Your task to perform on an android device: toggle priority inbox in the gmail app Image 0: 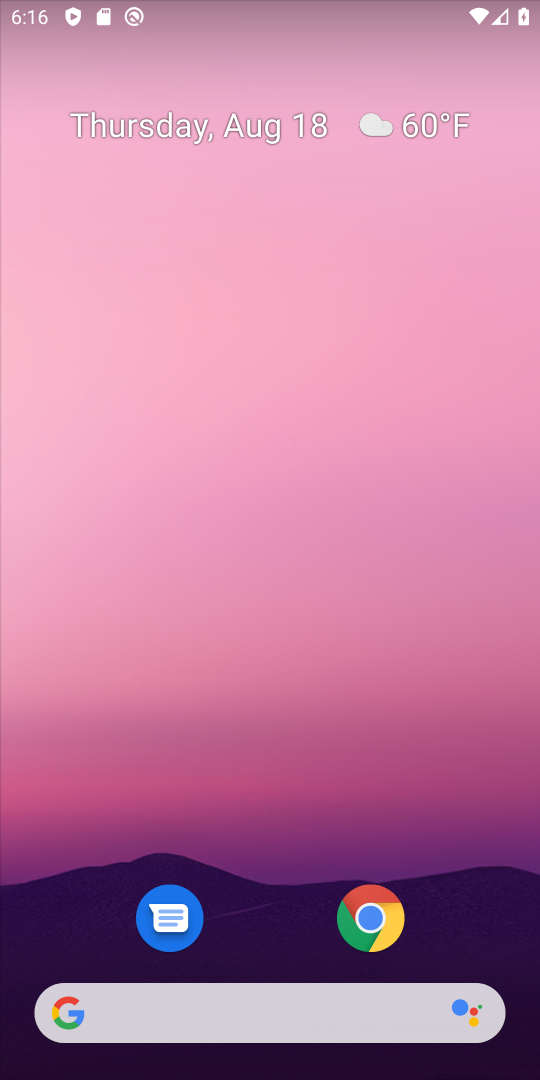
Step 0: drag from (261, 955) to (320, 94)
Your task to perform on an android device: toggle priority inbox in the gmail app Image 1: 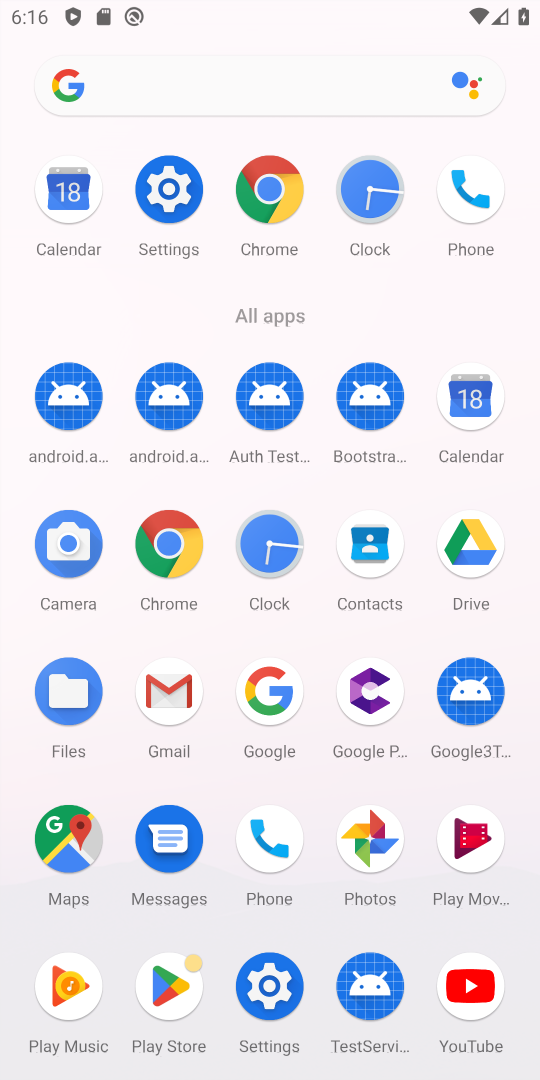
Step 1: click (154, 690)
Your task to perform on an android device: toggle priority inbox in the gmail app Image 2: 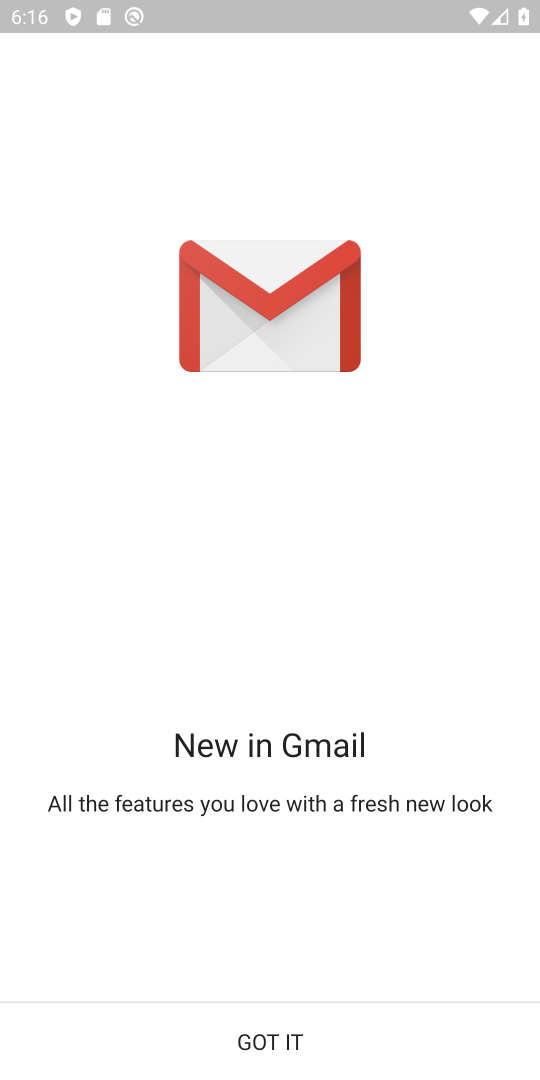
Step 2: click (267, 1051)
Your task to perform on an android device: toggle priority inbox in the gmail app Image 3: 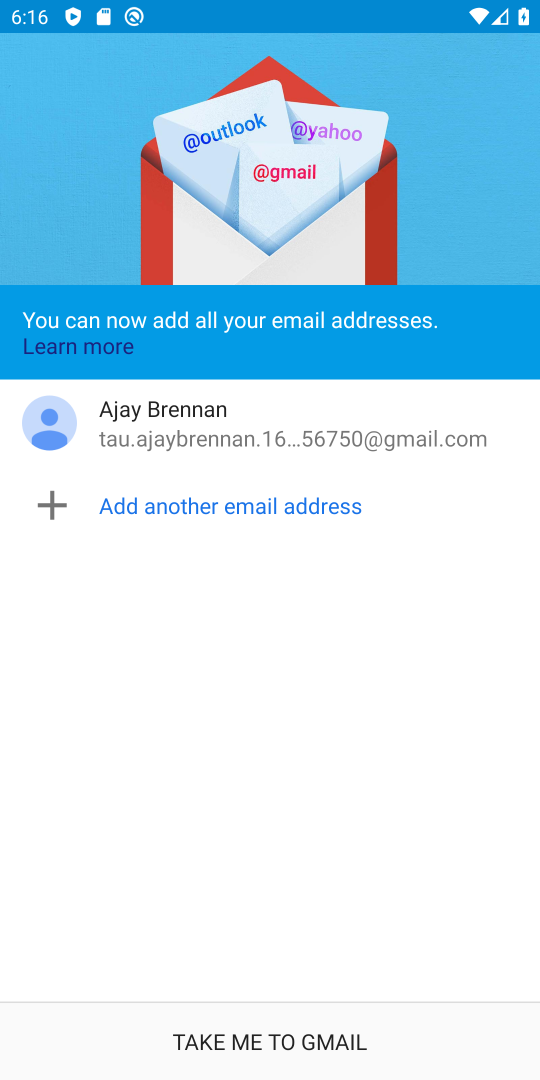
Step 3: click (269, 1044)
Your task to perform on an android device: toggle priority inbox in the gmail app Image 4: 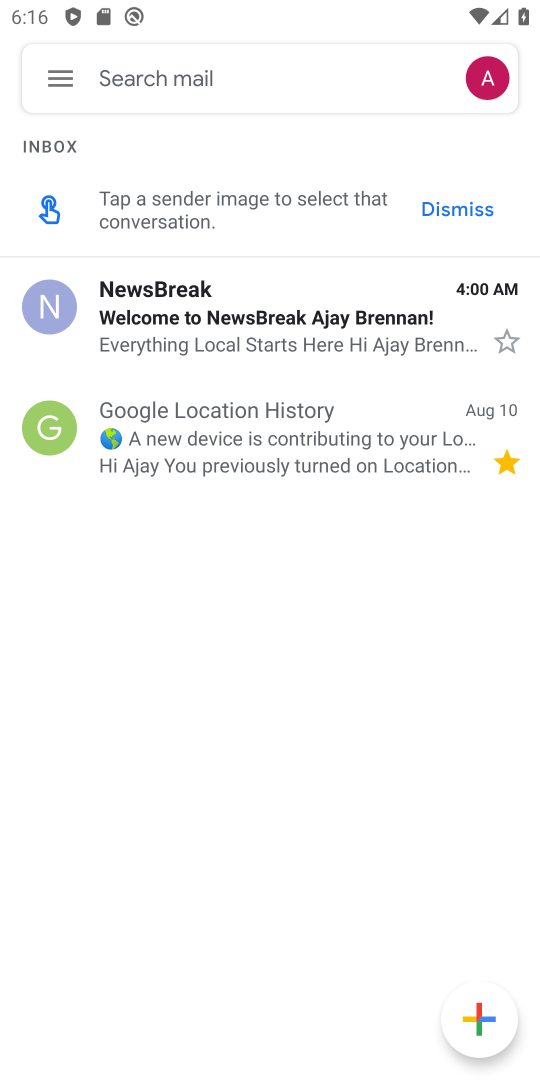
Step 4: click (46, 73)
Your task to perform on an android device: toggle priority inbox in the gmail app Image 5: 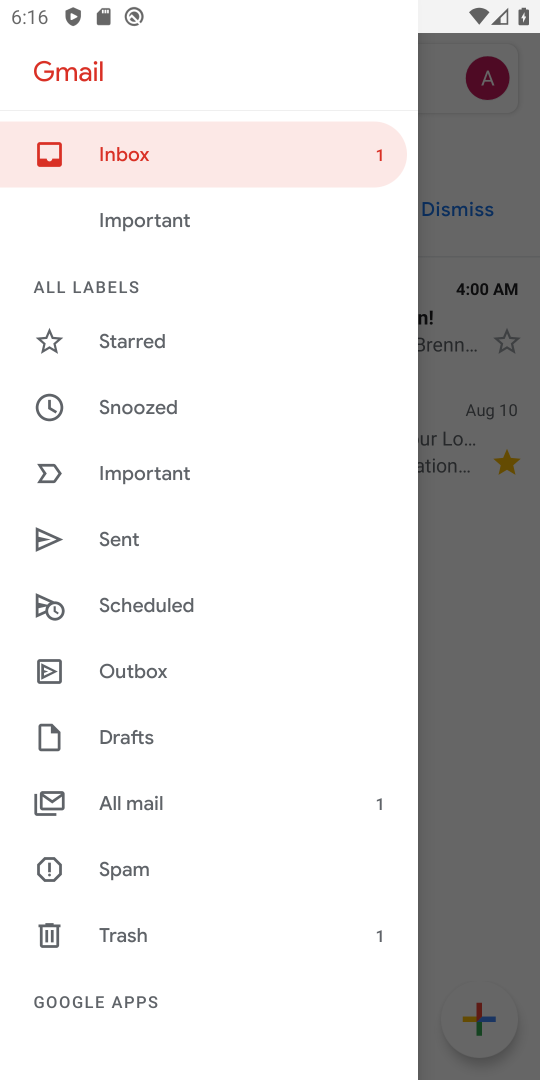
Step 5: drag from (352, 882) to (280, 149)
Your task to perform on an android device: toggle priority inbox in the gmail app Image 6: 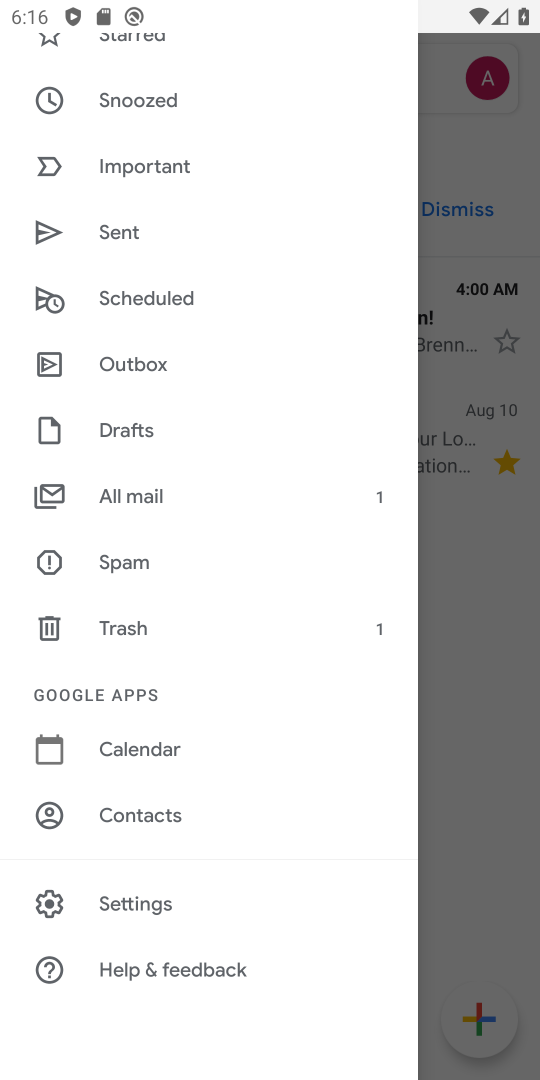
Step 6: click (118, 907)
Your task to perform on an android device: toggle priority inbox in the gmail app Image 7: 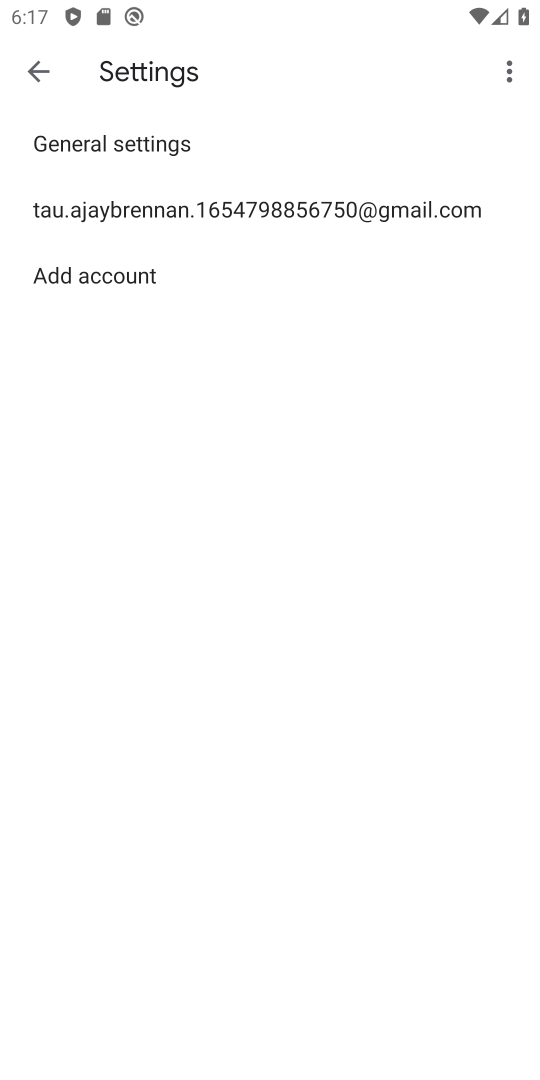
Step 7: click (115, 213)
Your task to perform on an android device: toggle priority inbox in the gmail app Image 8: 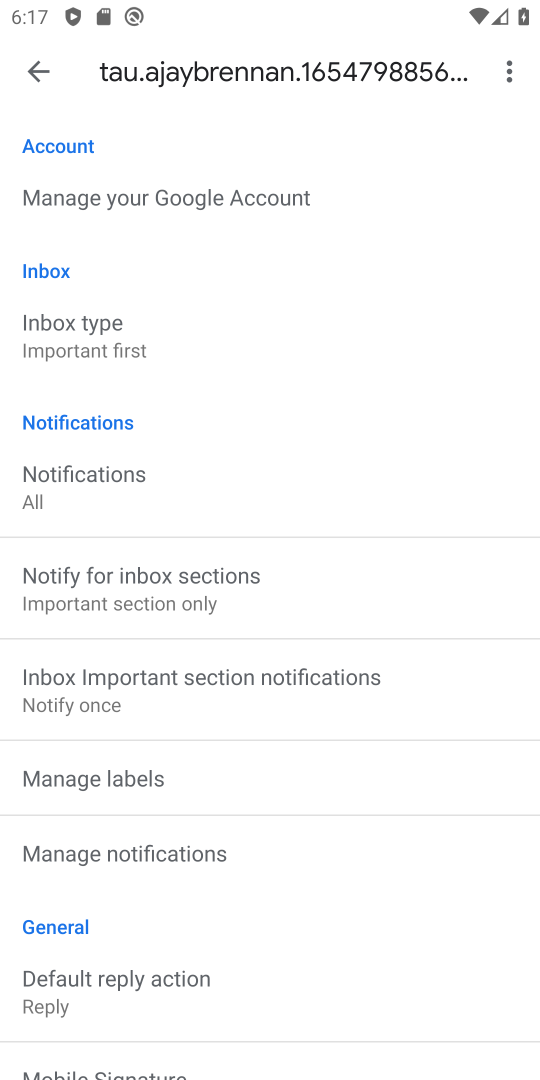
Step 8: click (86, 346)
Your task to perform on an android device: toggle priority inbox in the gmail app Image 9: 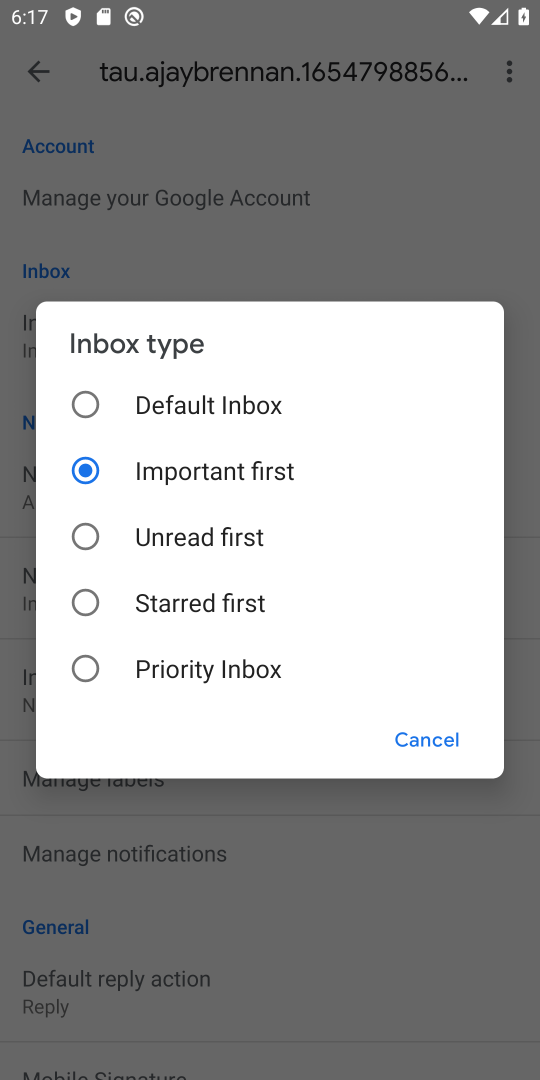
Step 9: click (83, 668)
Your task to perform on an android device: toggle priority inbox in the gmail app Image 10: 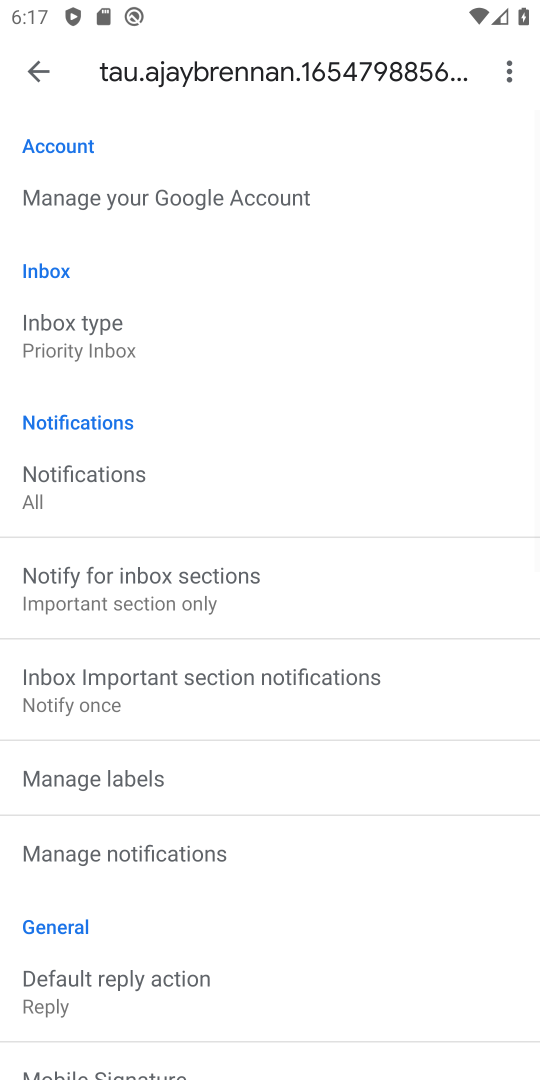
Step 10: task complete